Your task to perform on an android device: open a new tab in the chrome app Image 0: 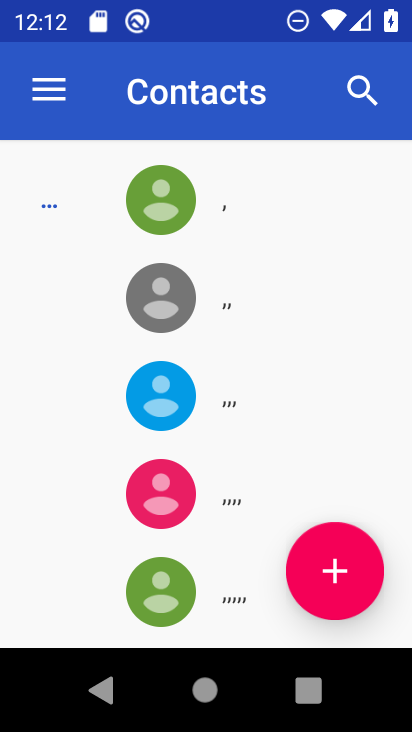
Step 0: press back button
Your task to perform on an android device: open a new tab in the chrome app Image 1: 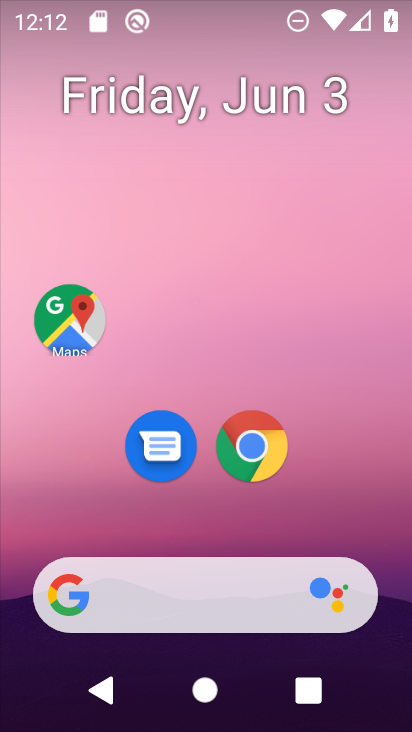
Step 1: drag from (316, 457) to (201, 121)
Your task to perform on an android device: open a new tab in the chrome app Image 2: 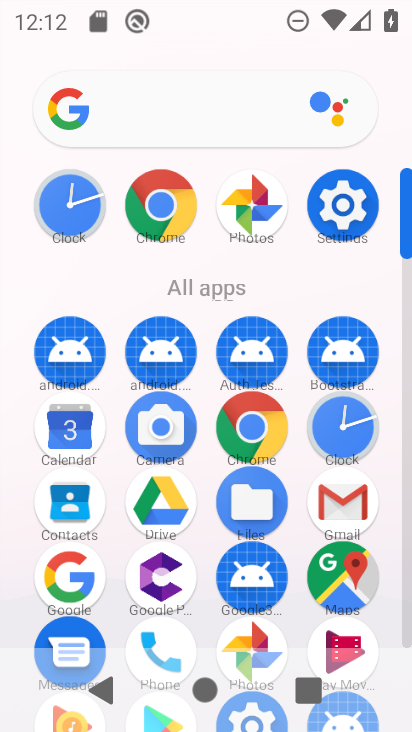
Step 2: click (169, 204)
Your task to perform on an android device: open a new tab in the chrome app Image 3: 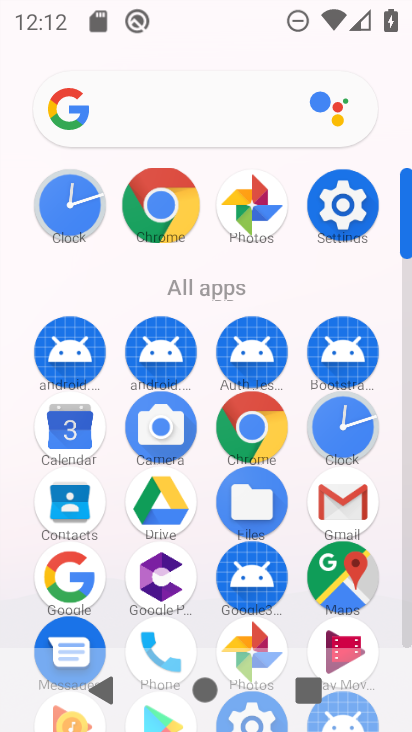
Step 3: click (169, 204)
Your task to perform on an android device: open a new tab in the chrome app Image 4: 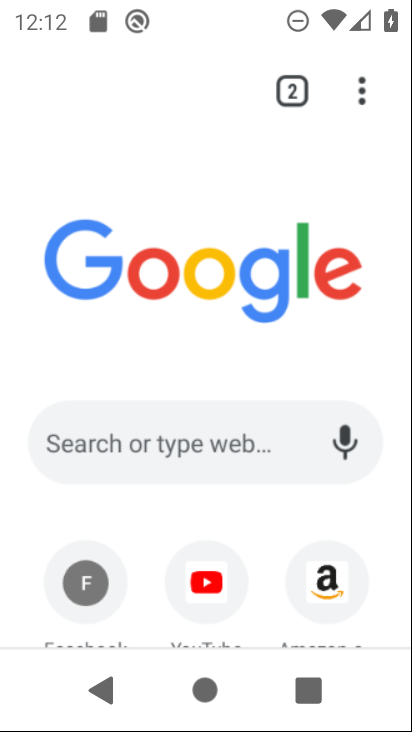
Step 4: click (169, 204)
Your task to perform on an android device: open a new tab in the chrome app Image 5: 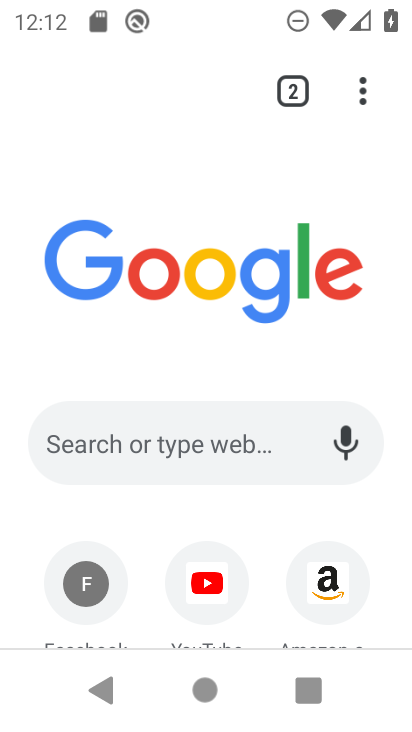
Step 5: drag from (354, 97) to (82, 180)
Your task to perform on an android device: open a new tab in the chrome app Image 6: 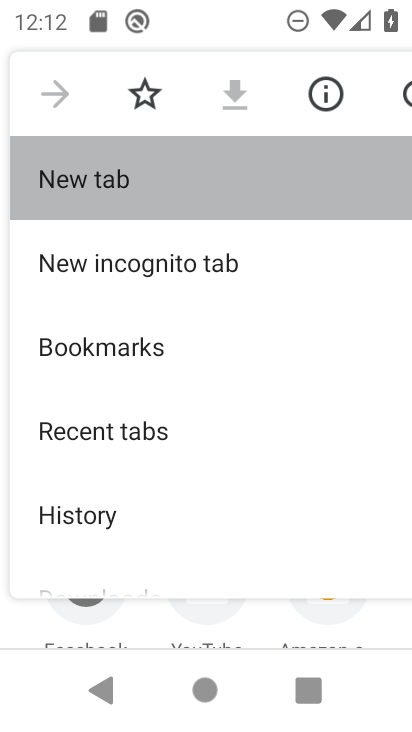
Step 6: click (81, 180)
Your task to perform on an android device: open a new tab in the chrome app Image 7: 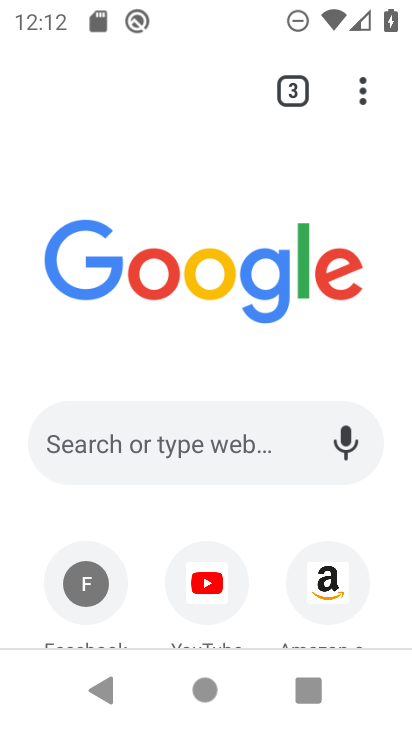
Step 7: task complete